Your task to perform on an android device: turn vacation reply on in the gmail app Image 0: 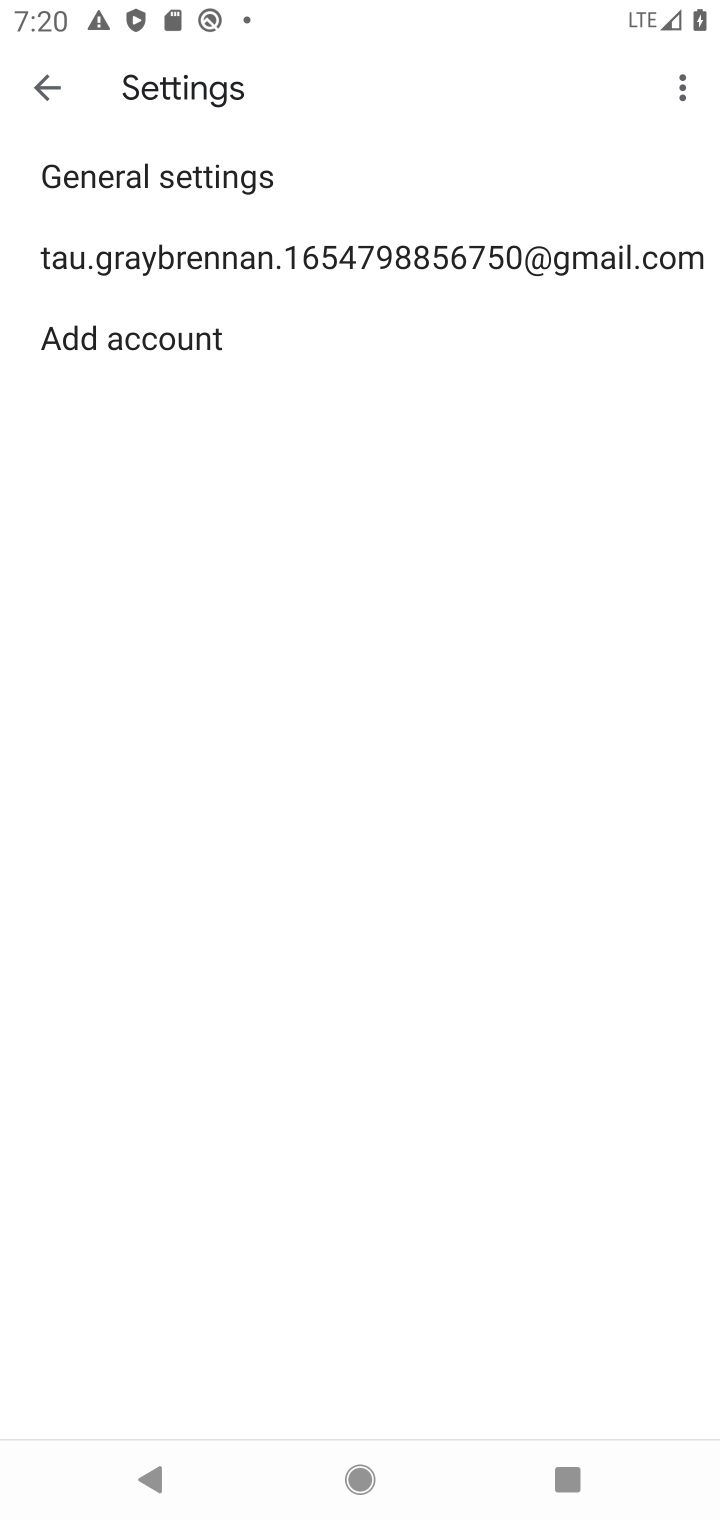
Step 0: press home button
Your task to perform on an android device: turn vacation reply on in the gmail app Image 1: 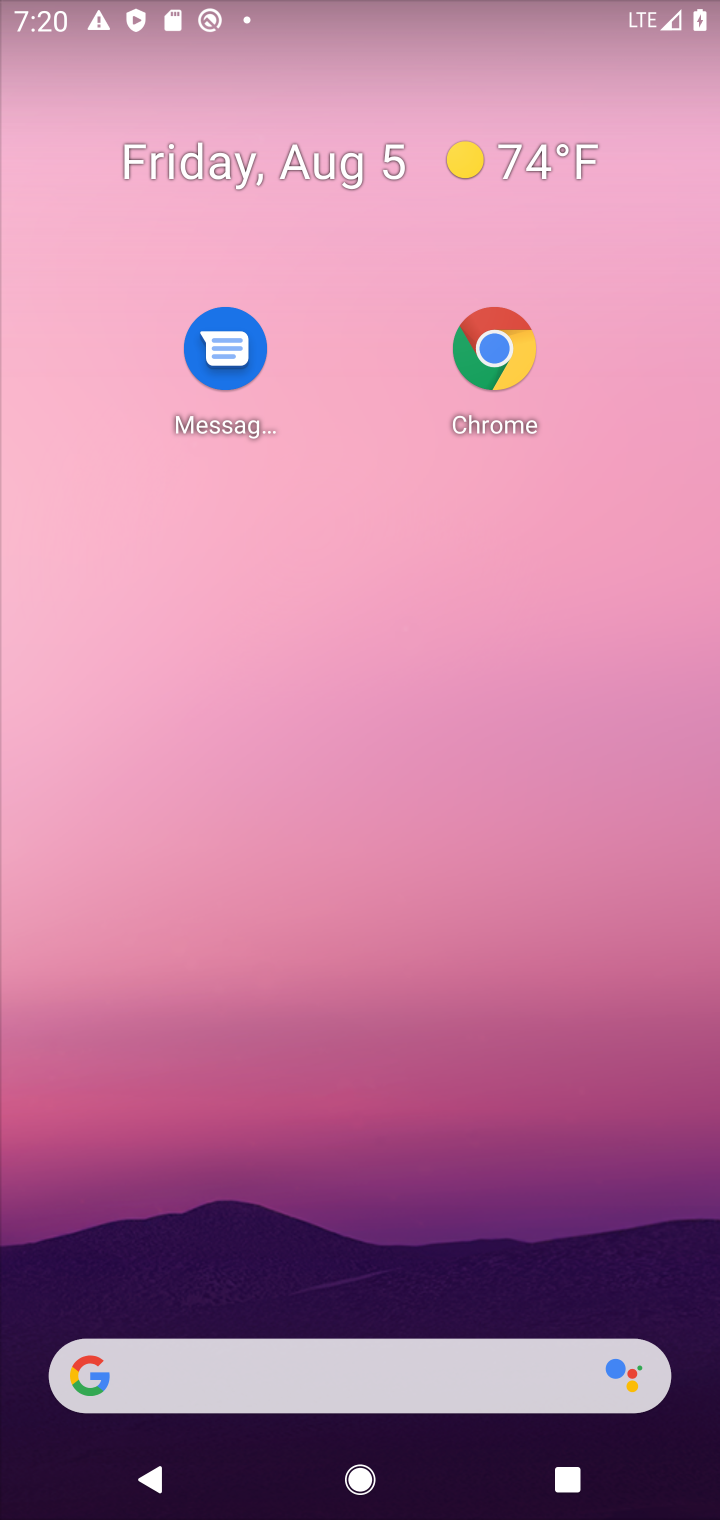
Step 1: drag from (462, 1345) to (487, 375)
Your task to perform on an android device: turn vacation reply on in the gmail app Image 2: 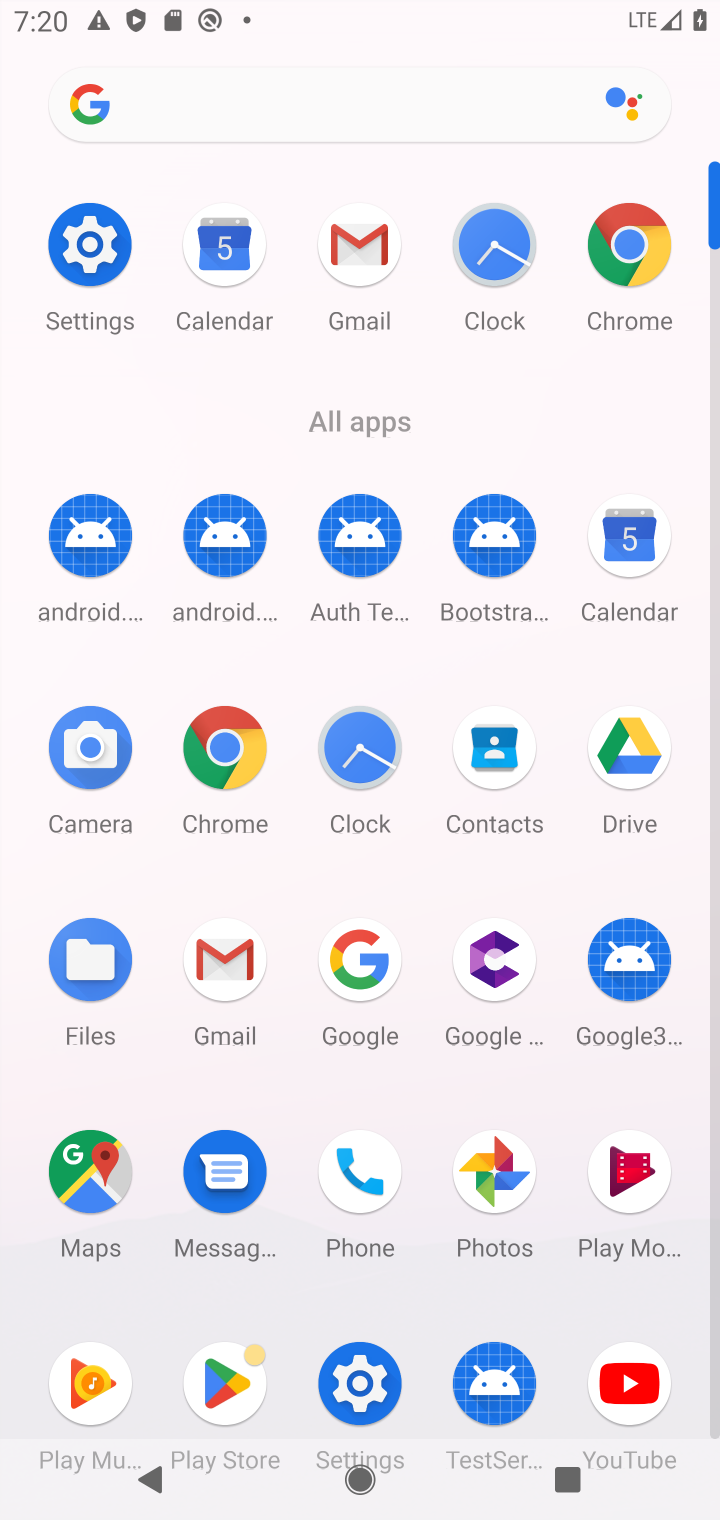
Step 2: click (362, 260)
Your task to perform on an android device: turn vacation reply on in the gmail app Image 3: 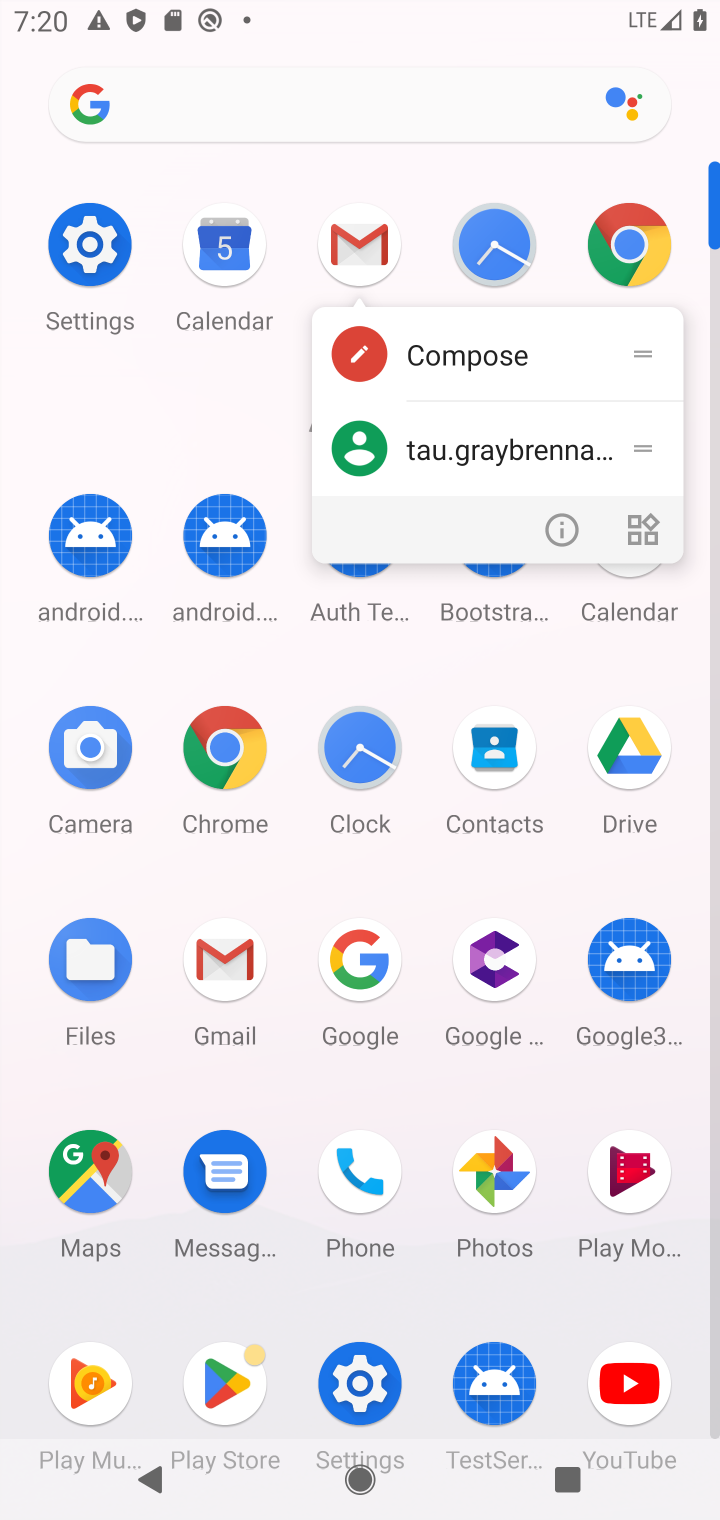
Step 3: click (362, 260)
Your task to perform on an android device: turn vacation reply on in the gmail app Image 4: 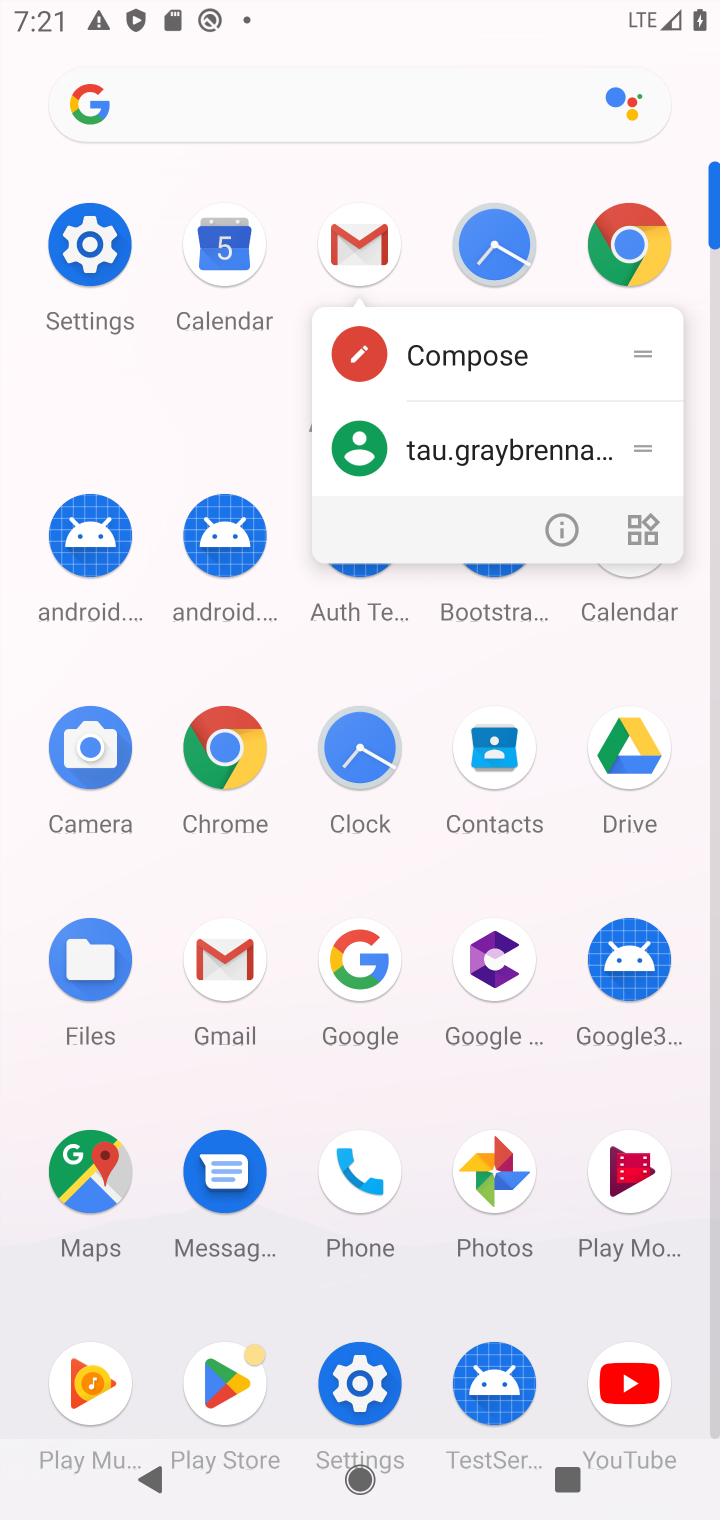
Step 4: click (362, 226)
Your task to perform on an android device: turn vacation reply on in the gmail app Image 5: 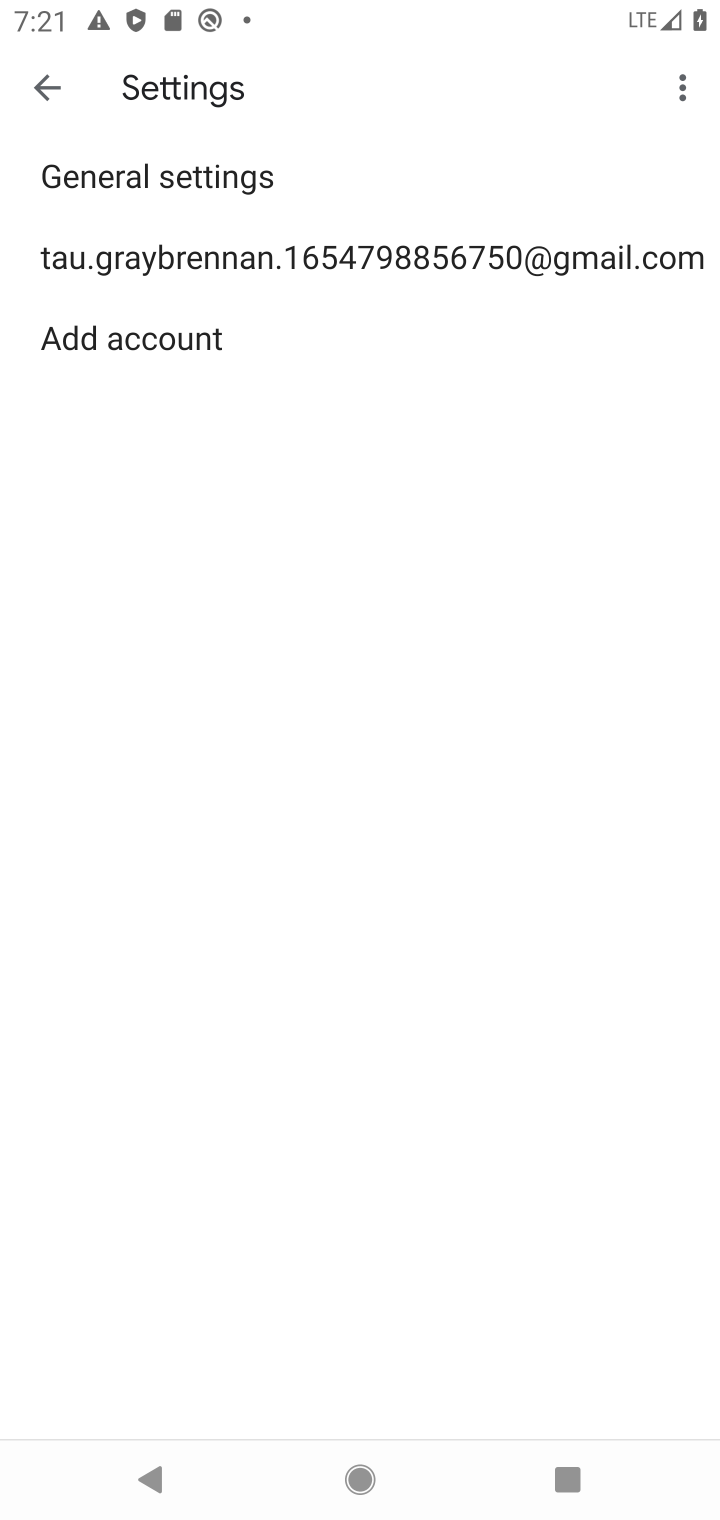
Step 5: click (236, 254)
Your task to perform on an android device: turn vacation reply on in the gmail app Image 6: 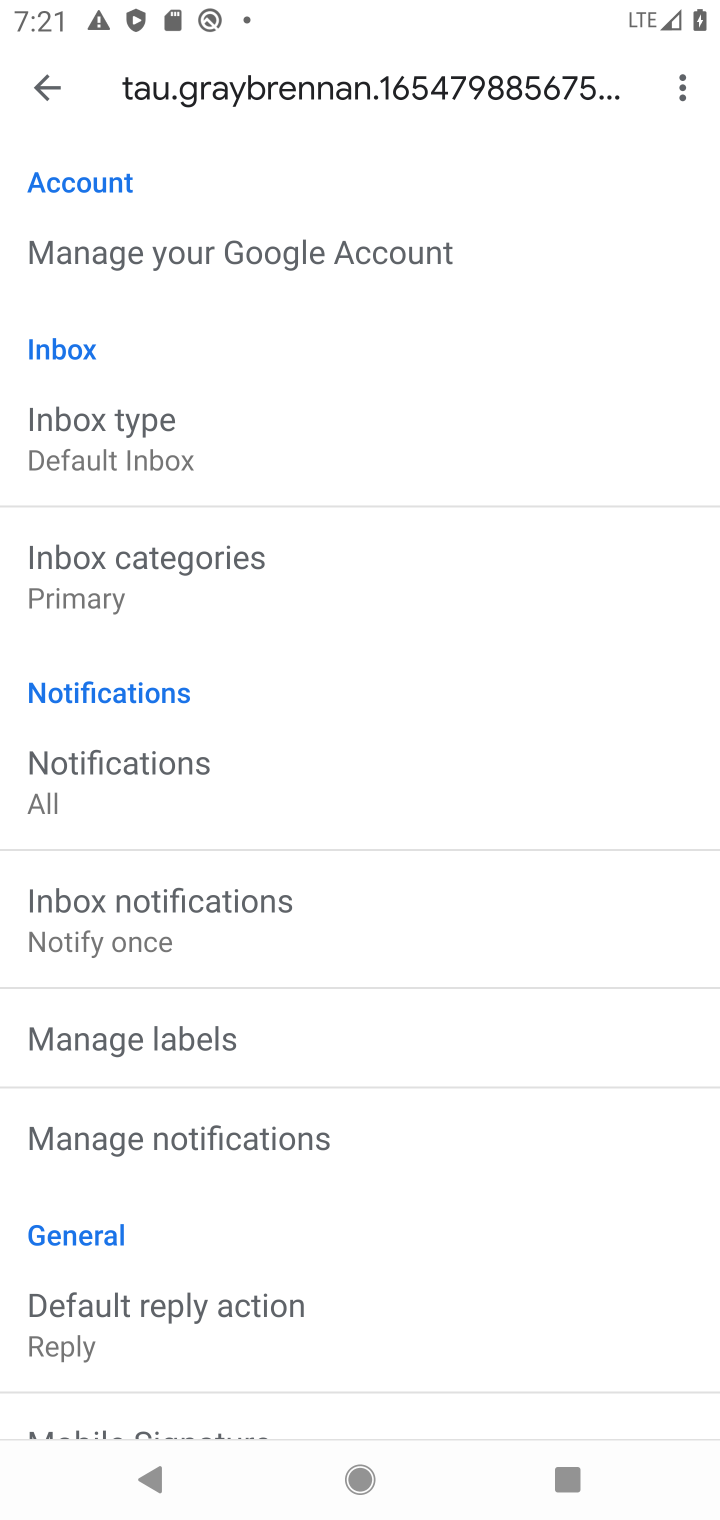
Step 6: drag from (472, 1027) to (378, 511)
Your task to perform on an android device: turn vacation reply on in the gmail app Image 7: 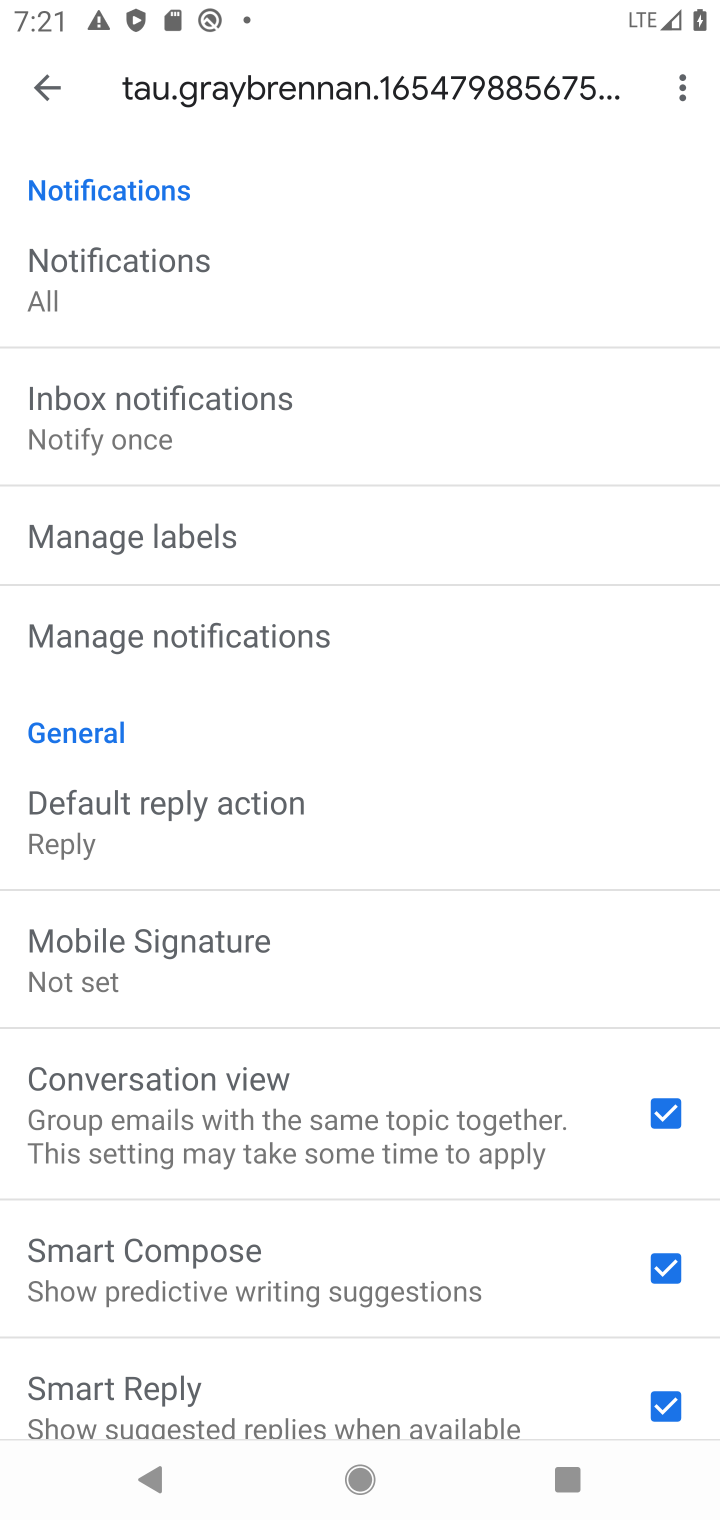
Step 7: drag from (306, 1270) to (315, 719)
Your task to perform on an android device: turn vacation reply on in the gmail app Image 8: 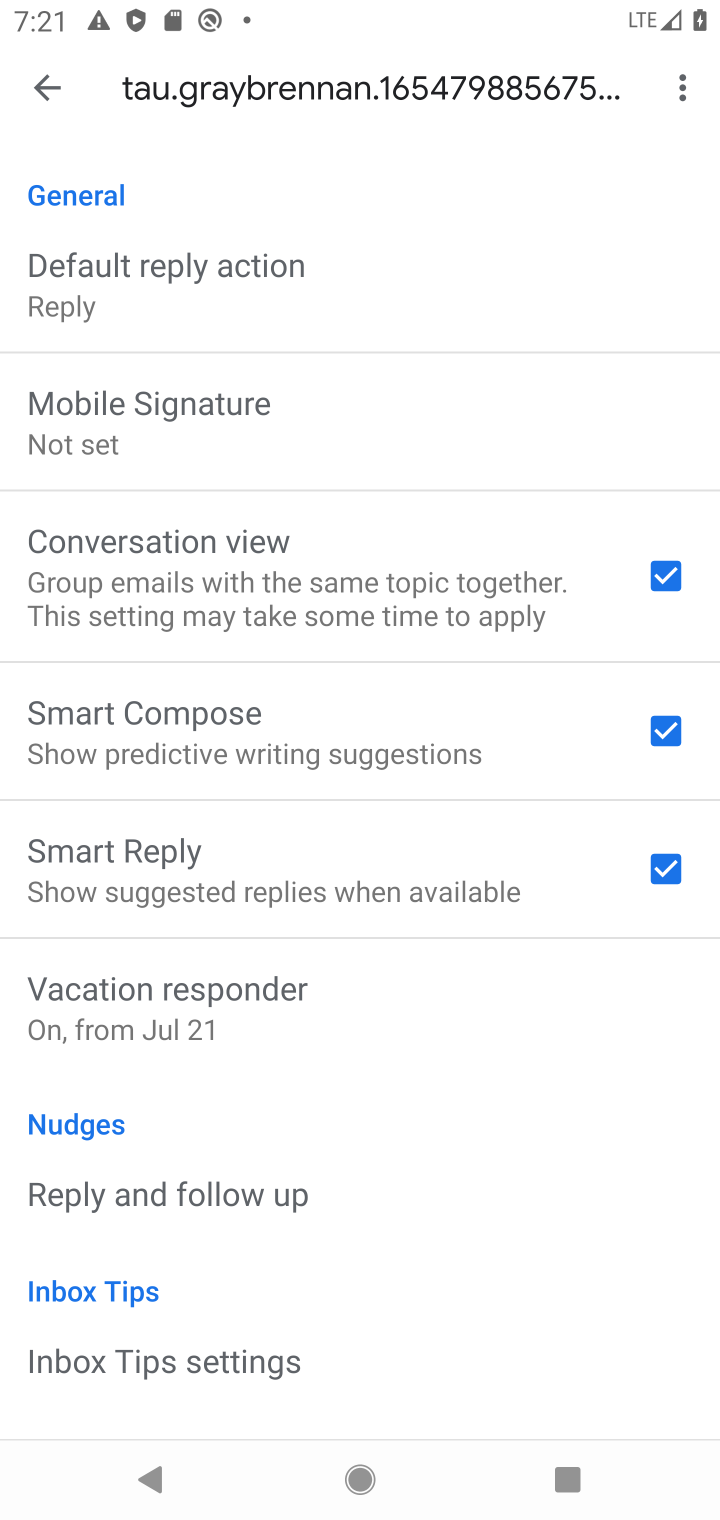
Step 8: click (243, 1002)
Your task to perform on an android device: turn vacation reply on in the gmail app Image 9: 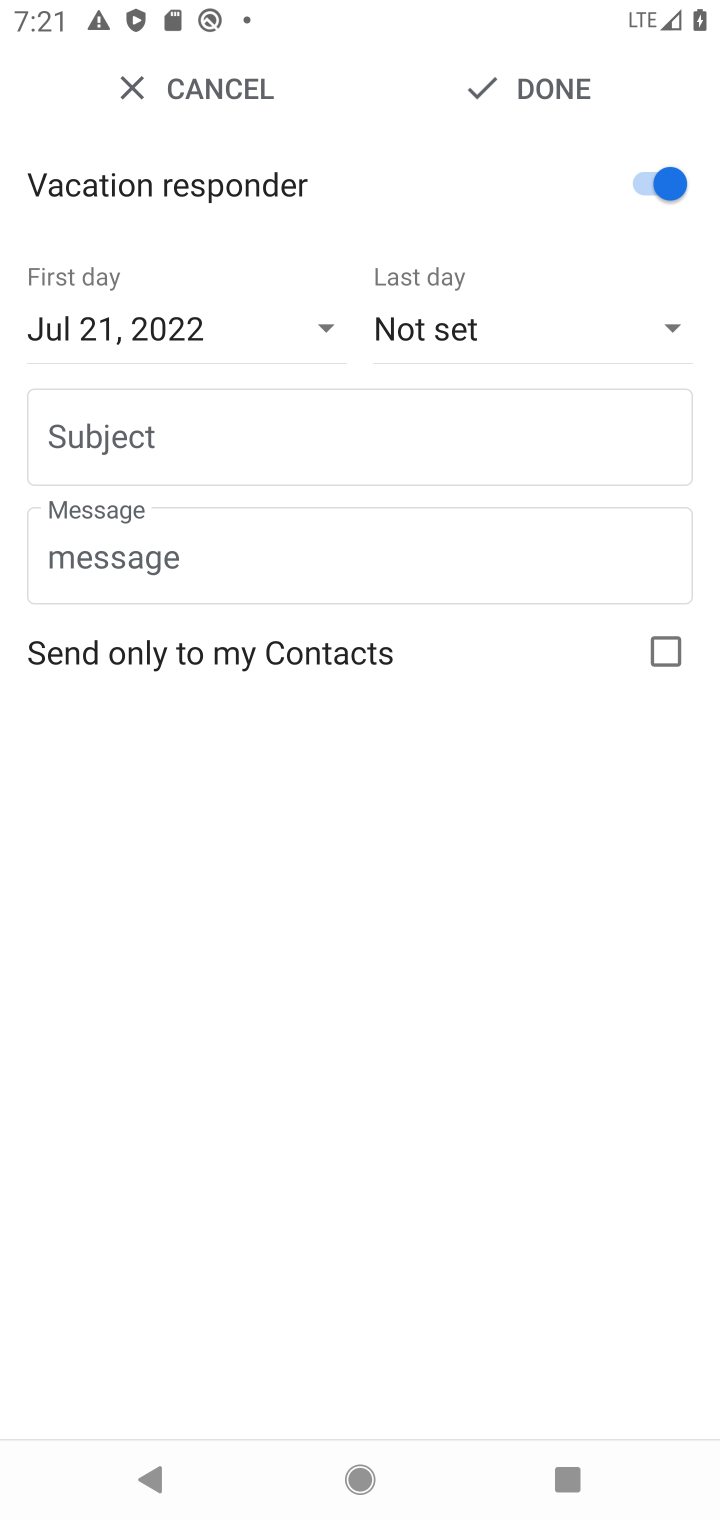
Step 9: task complete